Your task to perform on an android device: Search for seafood restaurants on Google Maps Image 0: 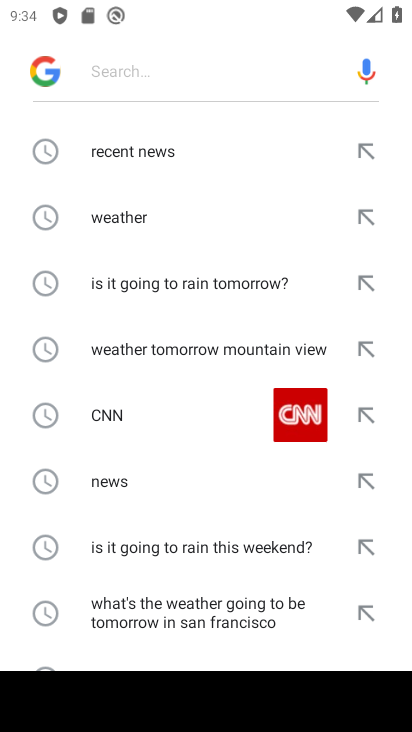
Step 0: press home button
Your task to perform on an android device: Search for seafood restaurants on Google Maps Image 1: 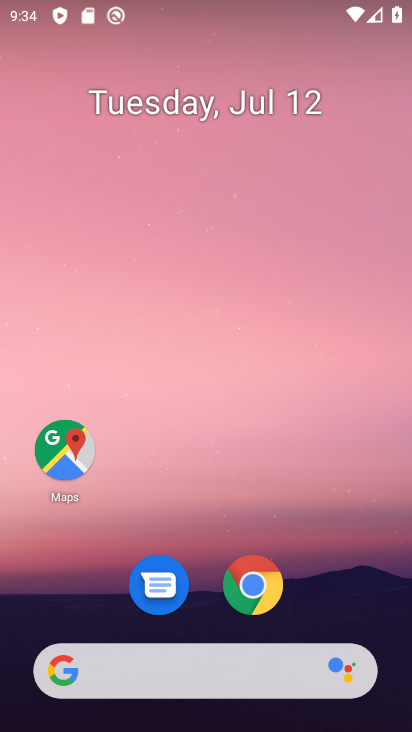
Step 1: click (61, 460)
Your task to perform on an android device: Search for seafood restaurants on Google Maps Image 2: 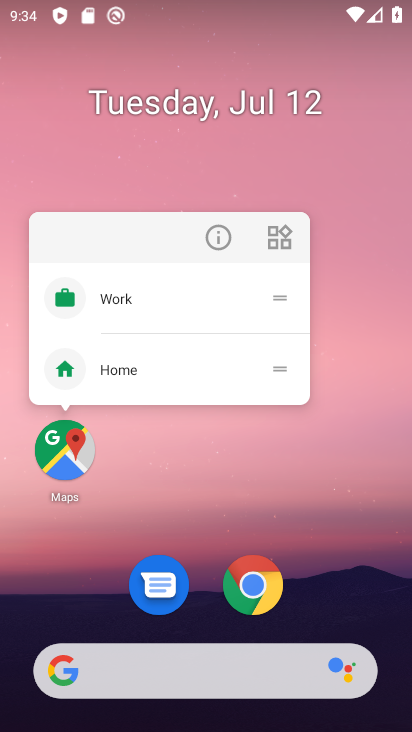
Step 2: click (62, 459)
Your task to perform on an android device: Search for seafood restaurants on Google Maps Image 3: 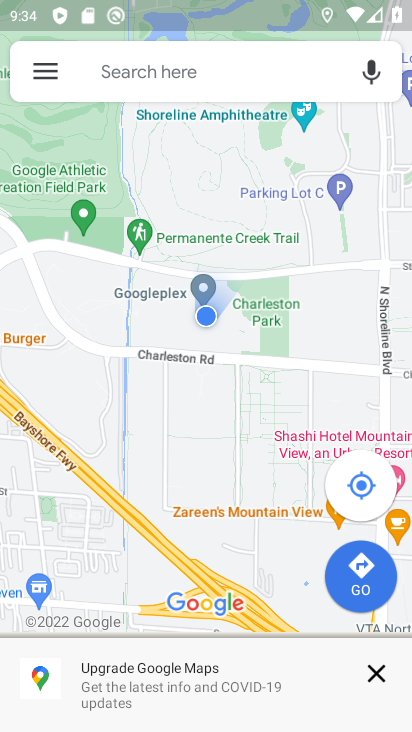
Step 3: click (207, 79)
Your task to perform on an android device: Search for seafood restaurants on Google Maps Image 4: 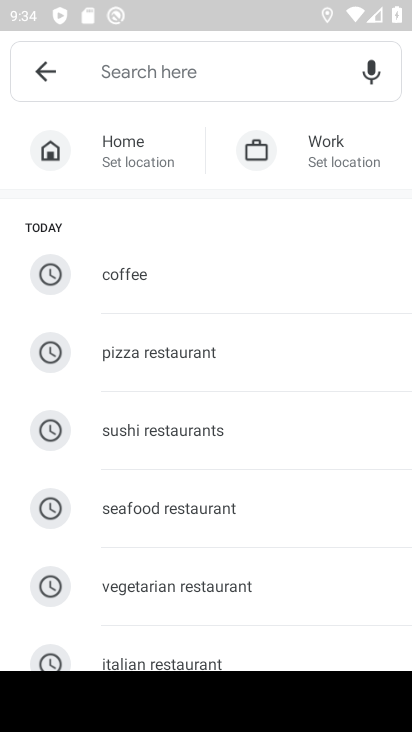
Step 4: click (180, 509)
Your task to perform on an android device: Search for seafood restaurants on Google Maps Image 5: 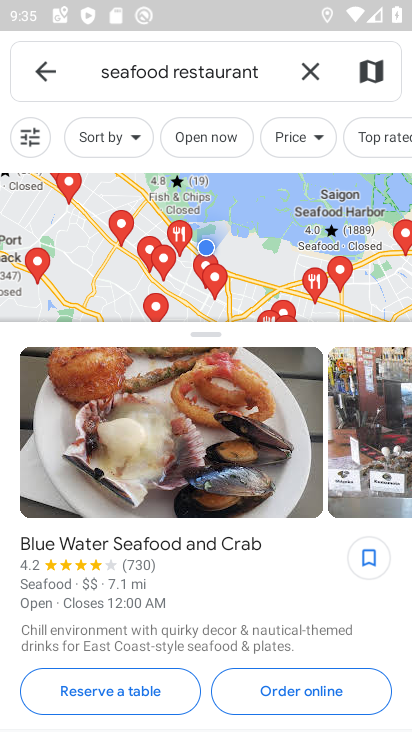
Step 5: task complete